Your task to perform on an android device: open app "Truecaller" (install if not already installed) Image 0: 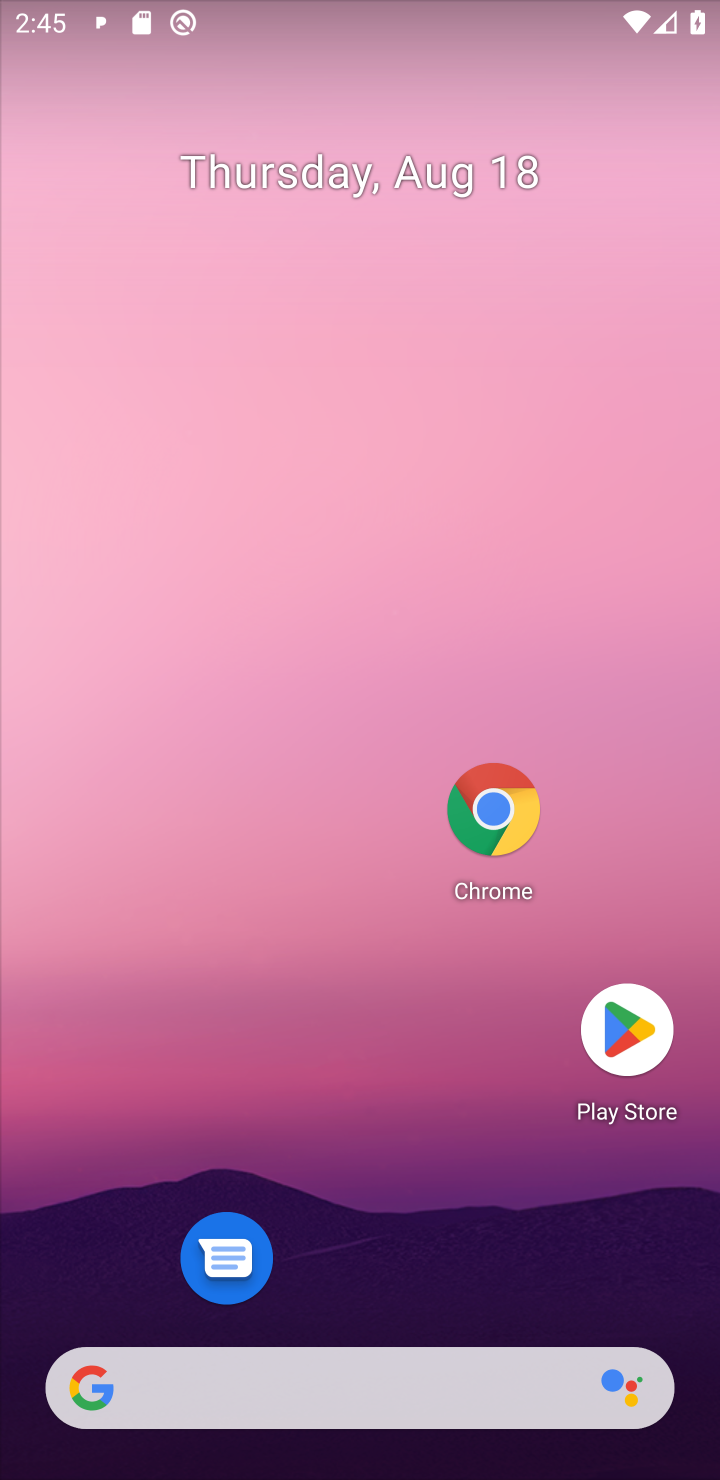
Step 0: drag from (366, 719) to (417, 334)
Your task to perform on an android device: open app "Truecaller" (install if not already installed) Image 1: 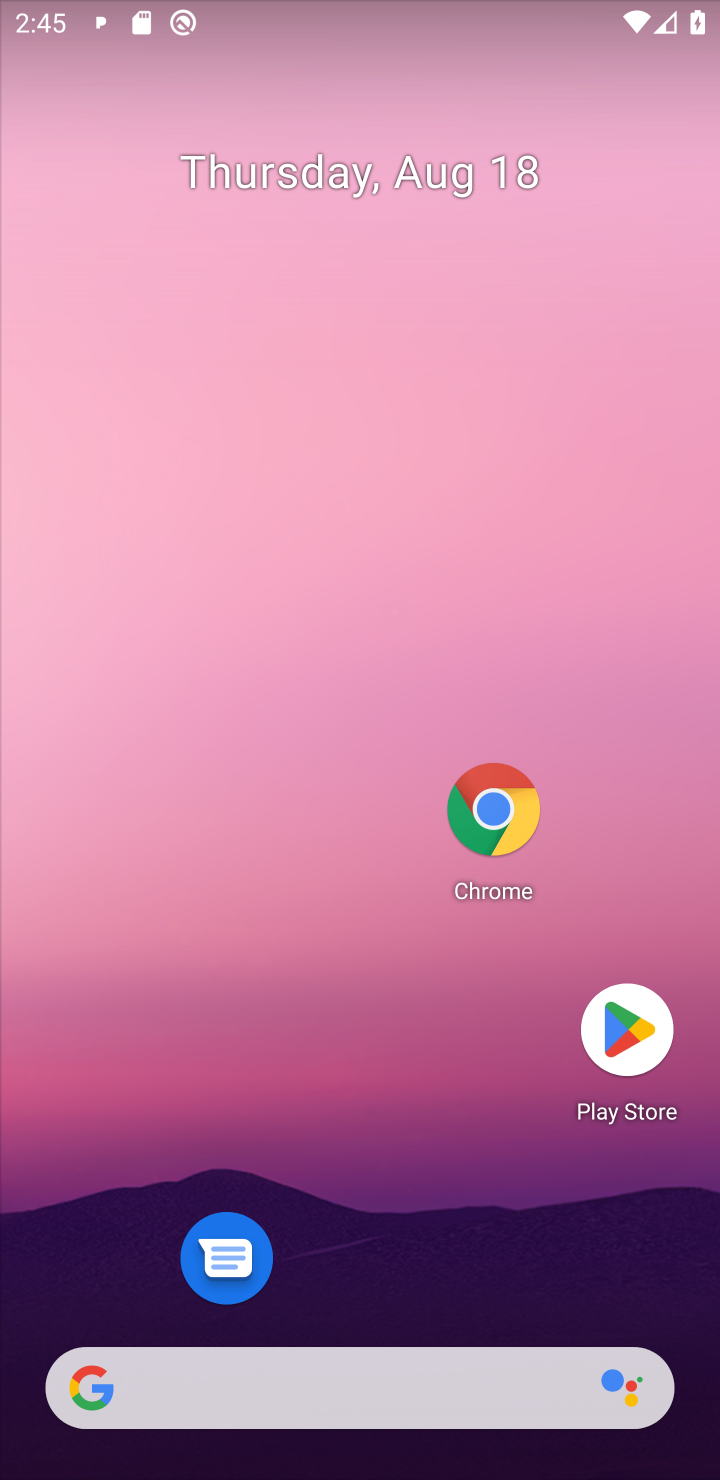
Step 1: click (660, 1014)
Your task to perform on an android device: open app "Truecaller" (install if not already installed) Image 2: 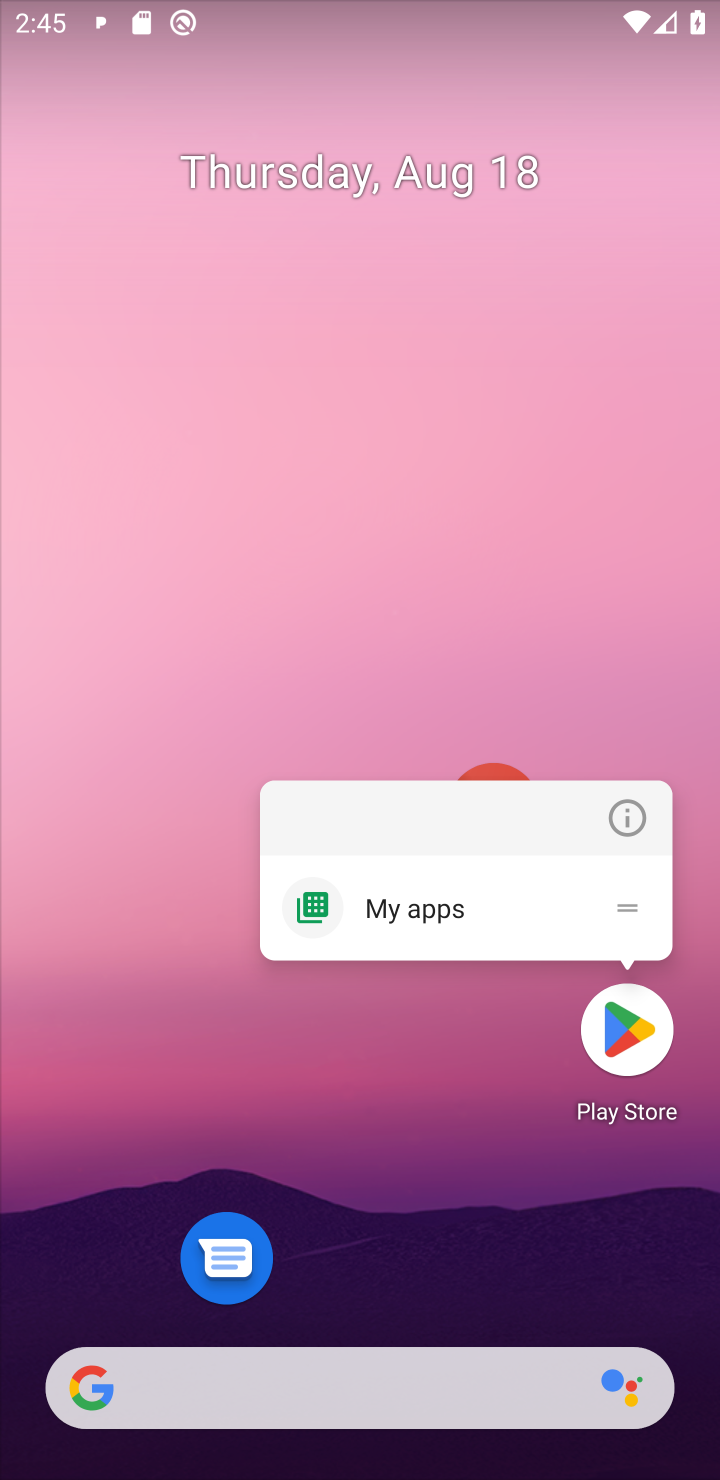
Step 2: click (634, 1044)
Your task to perform on an android device: open app "Truecaller" (install if not already installed) Image 3: 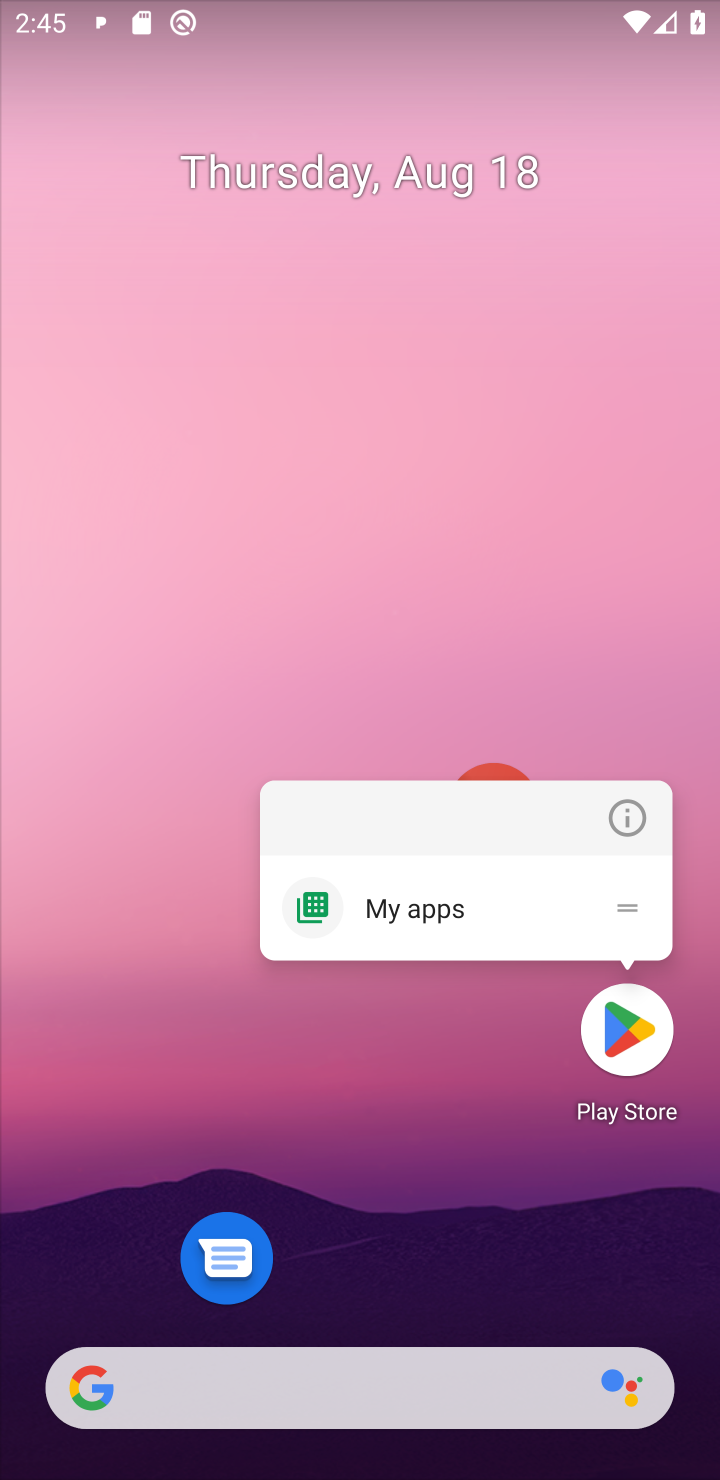
Step 3: click (634, 1044)
Your task to perform on an android device: open app "Truecaller" (install if not already installed) Image 4: 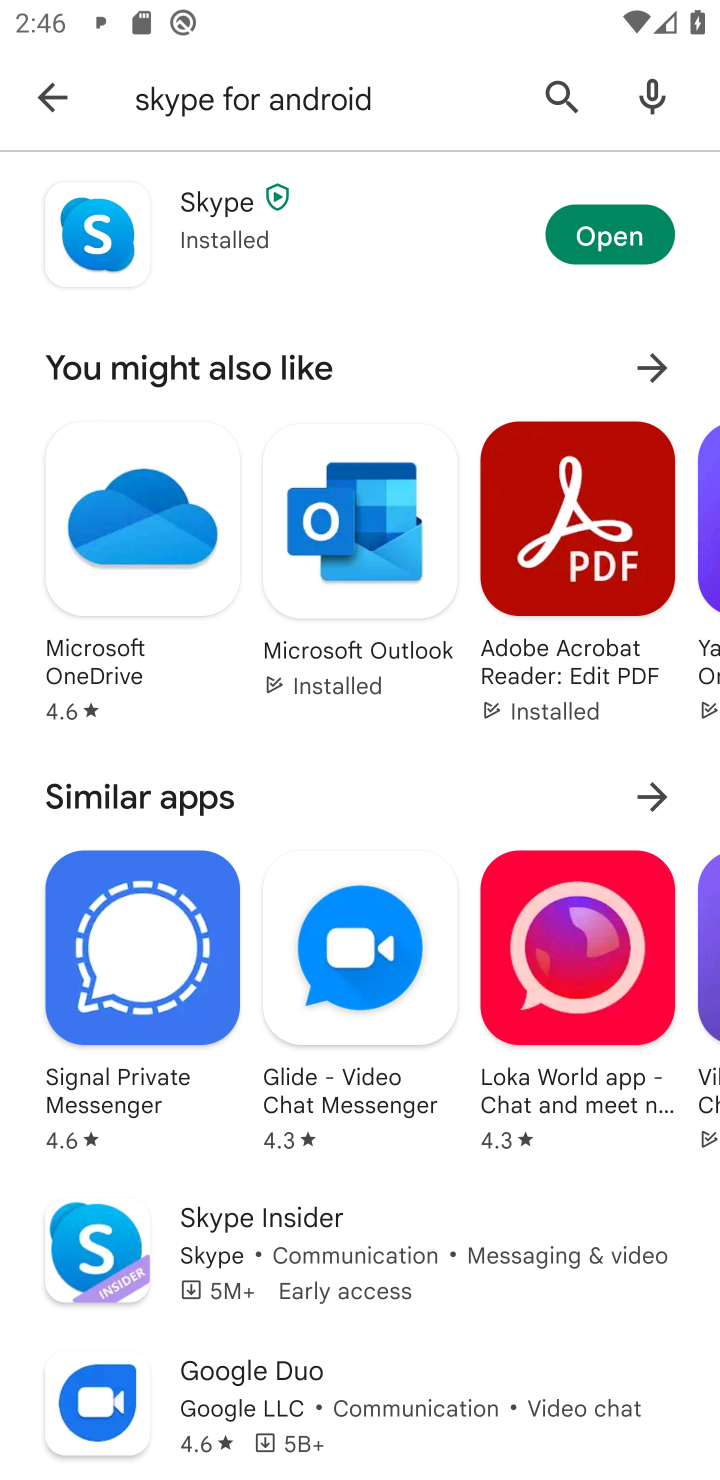
Step 4: click (582, 107)
Your task to perform on an android device: open app "Truecaller" (install if not already installed) Image 5: 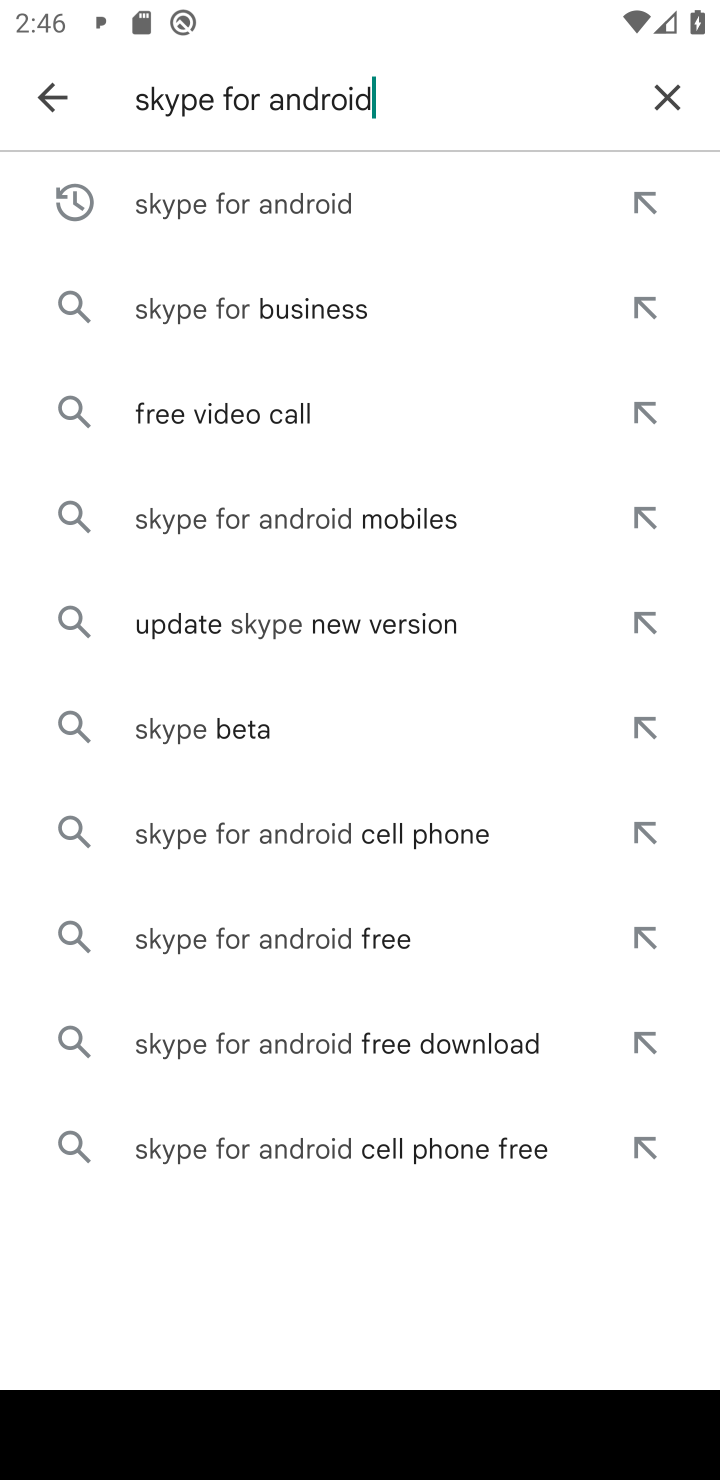
Step 5: click (664, 90)
Your task to perform on an android device: open app "Truecaller" (install if not already installed) Image 6: 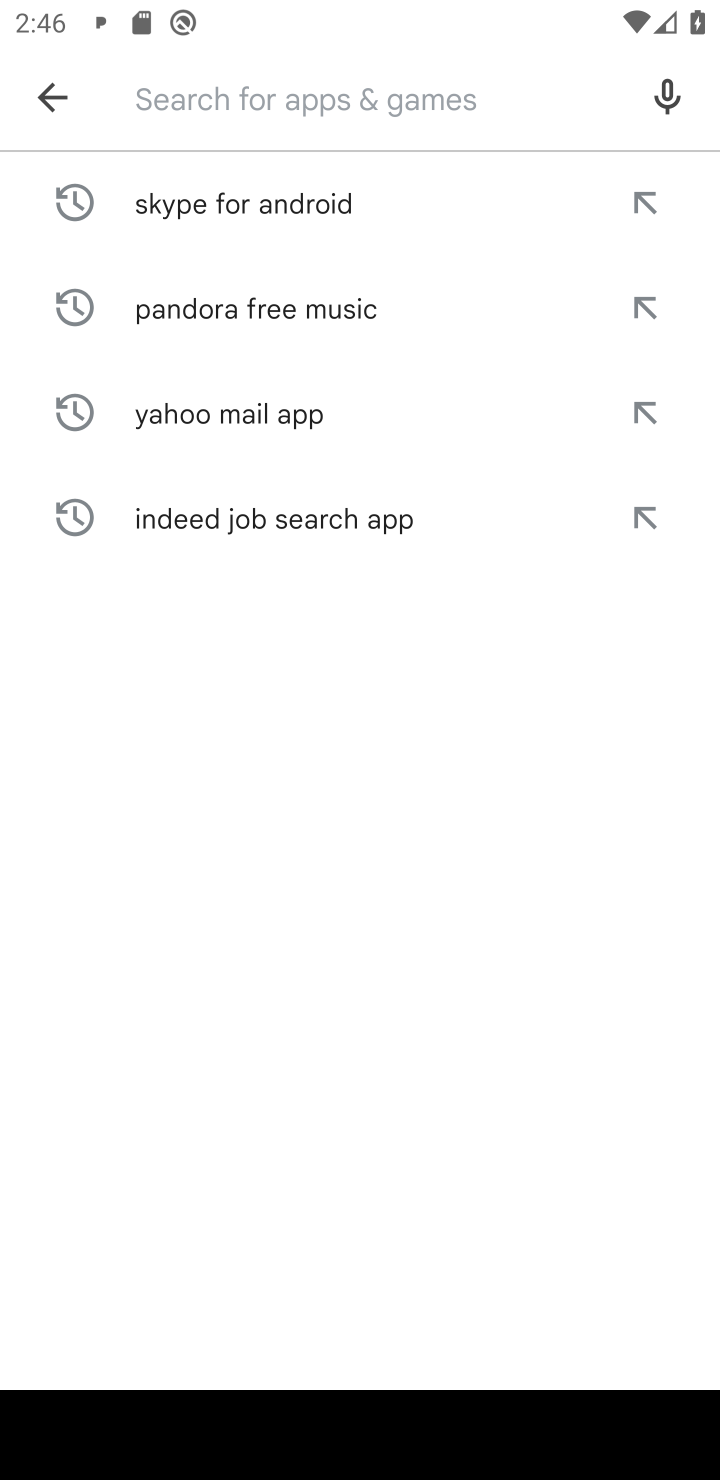
Step 6: click (356, 82)
Your task to perform on an android device: open app "Truecaller" (install if not already installed) Image 7: 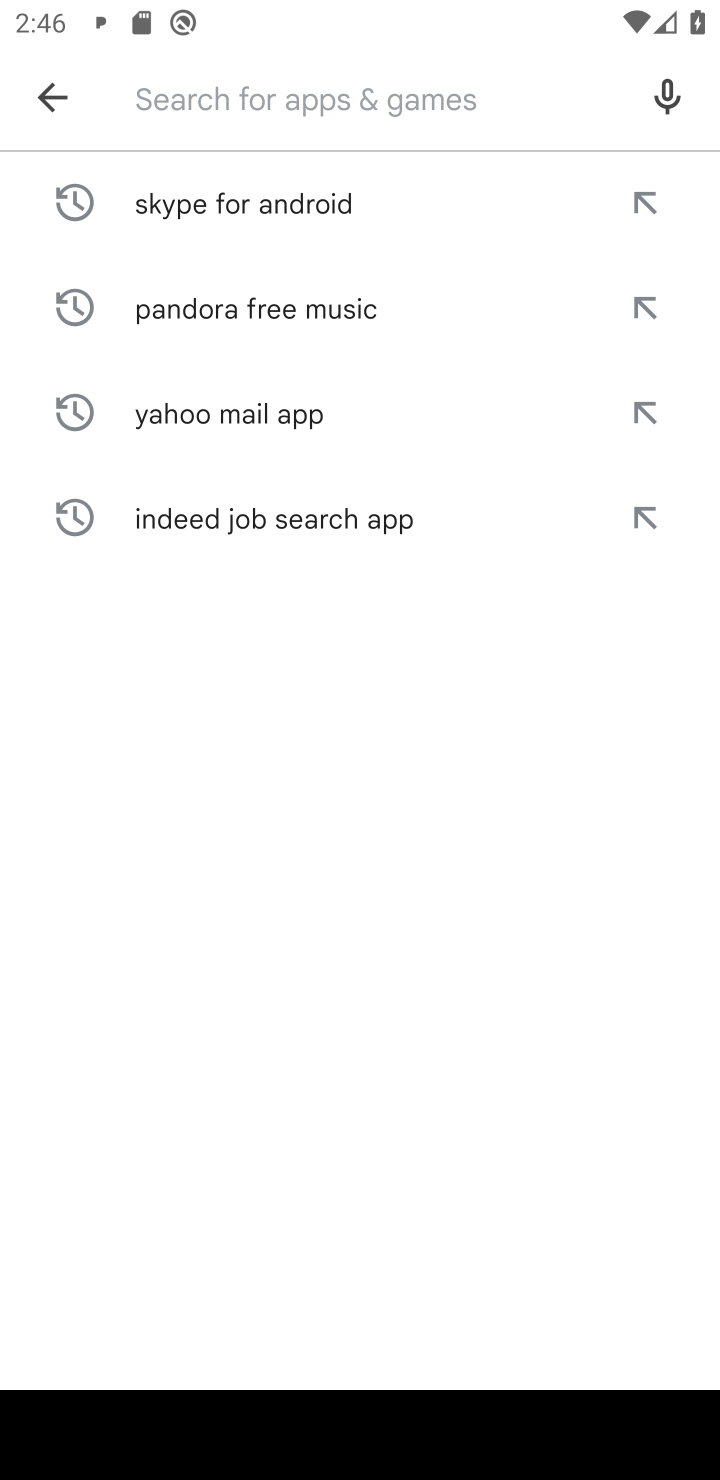
Step 7: type "true caller "
Your task to perform on an android device: open app "Truecaller" (install if not already installed) Image 8: 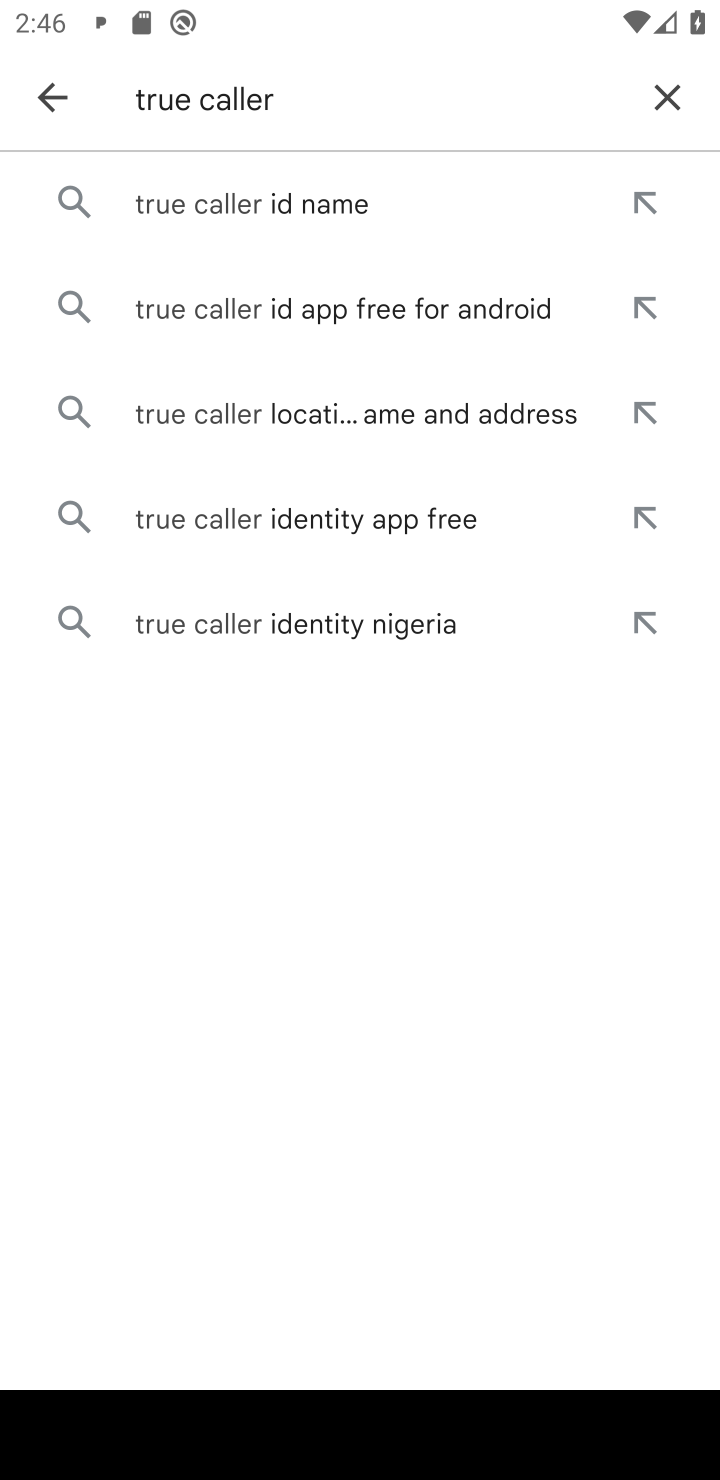
Step 8: click (308, 215)
Your task to perform on an android device: open app "Truecaller" (install if not already installed) Image 9: 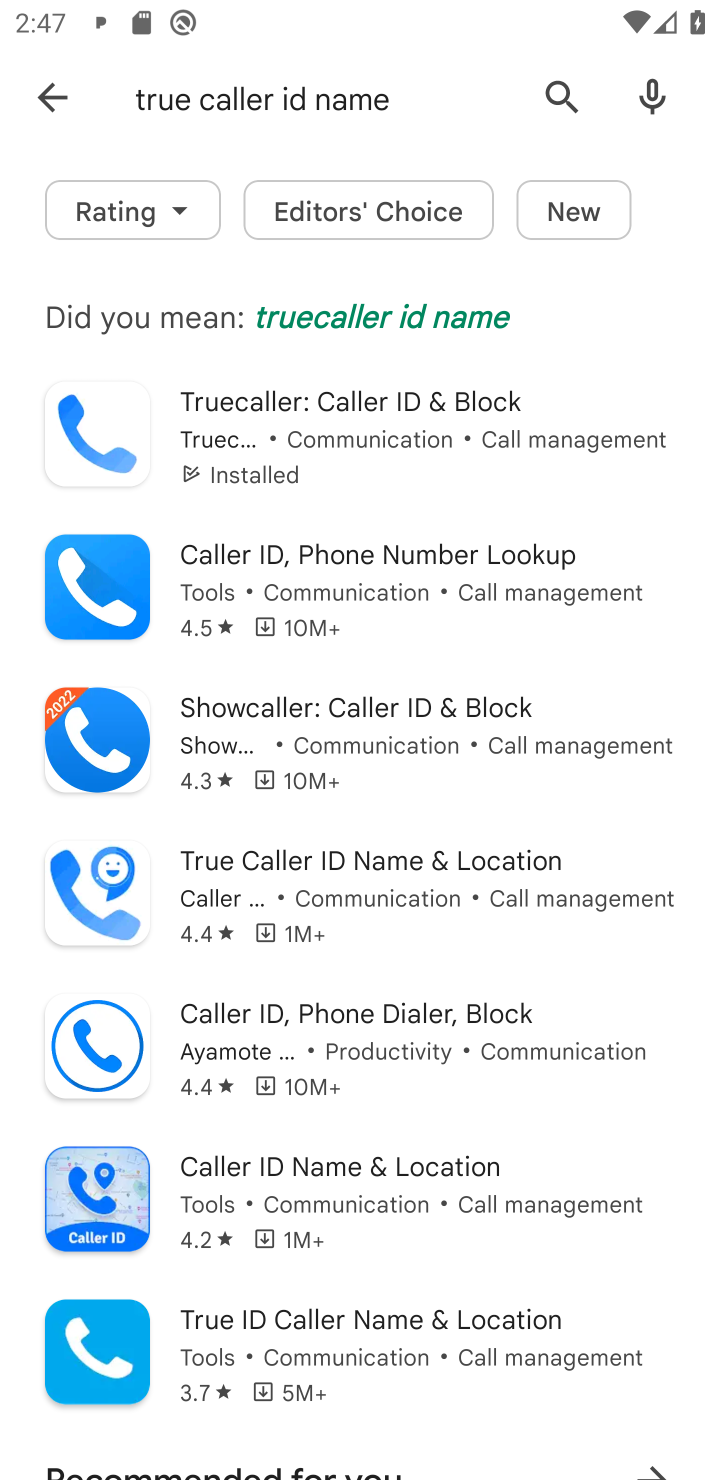
Step 9: click (392, 379)
Your task to perform on an android device: open app "Truecaller" (install if not already installed) Image 10: 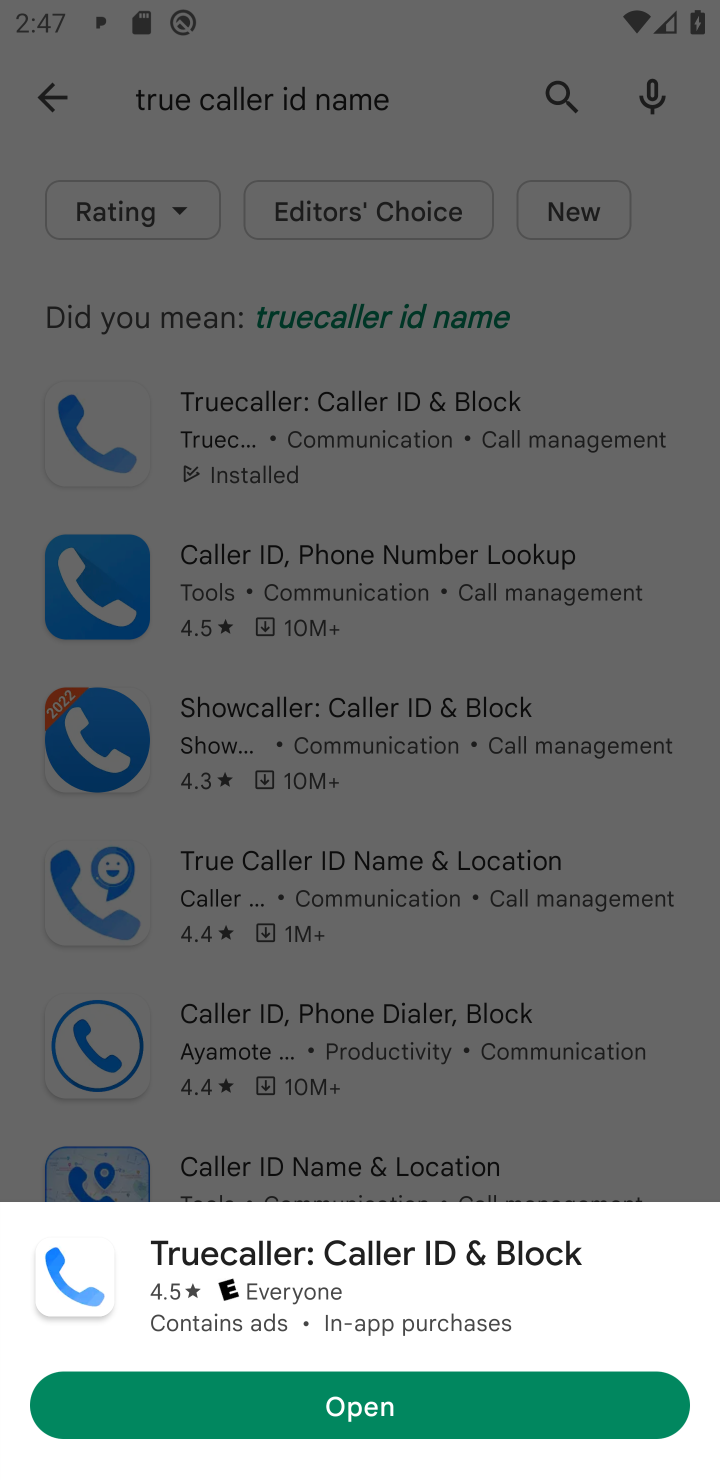
Step 10: click (382, 1383)
Your task to perform on an android device: open app "Truecaller" (install if not already installed) Image 11: 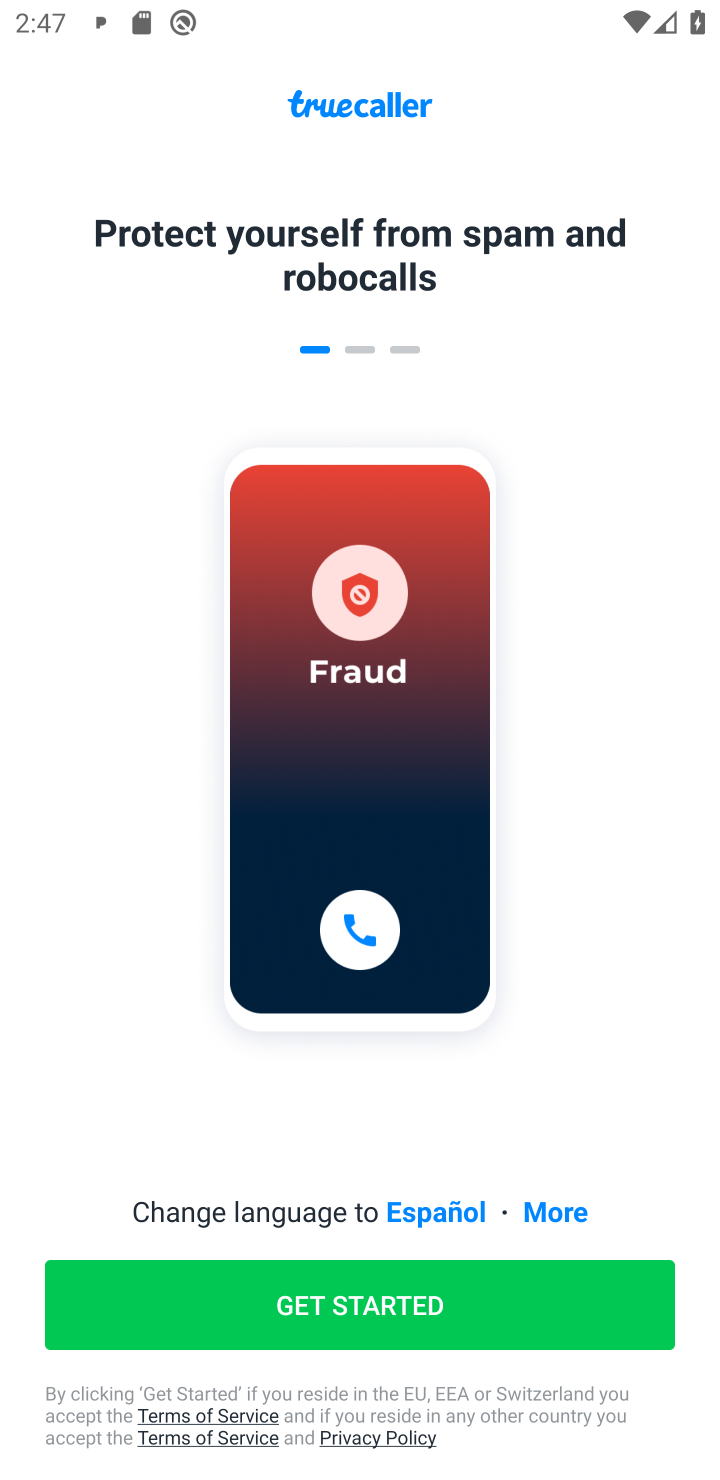
Step 11: task complete